Your task to perform on an android device: Open notification settings Image 0: 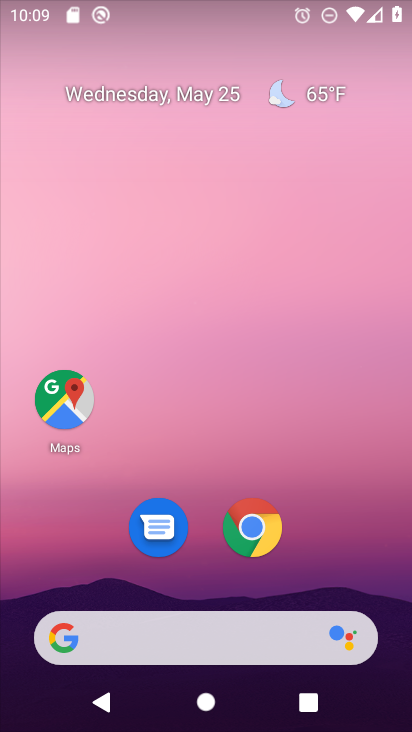
Step 0: drag from (333, 568) to (225, 121)
Your task to perform on an android device: Open notification settings Image 1: 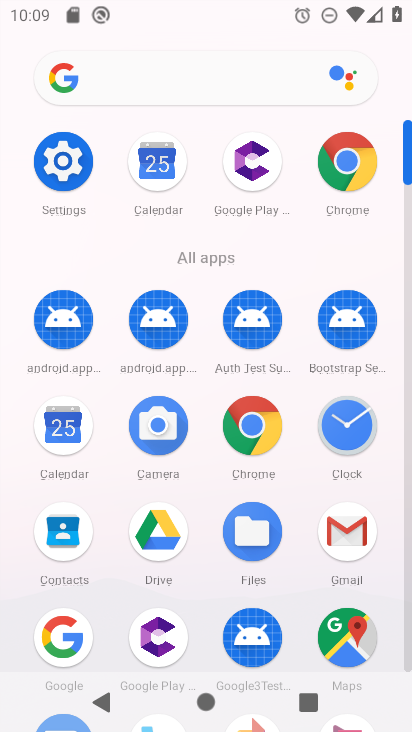
Step 1: click (63, 160)
Your task to perform on an android device: Open notification settings Image 2: 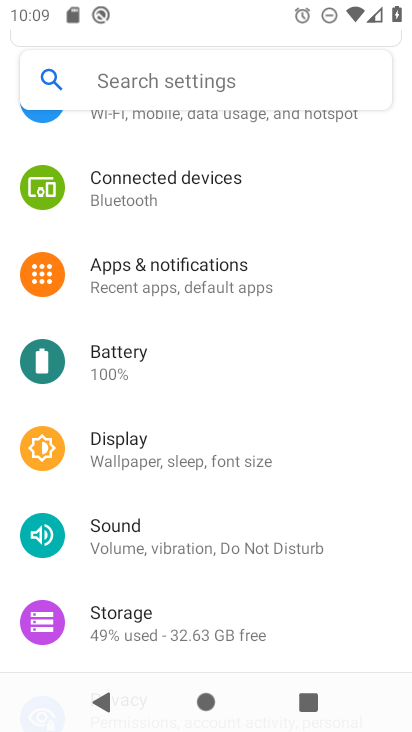
Step 2: click (212, 269)
Your task to perform on an android device: Open notification settings Image 3: 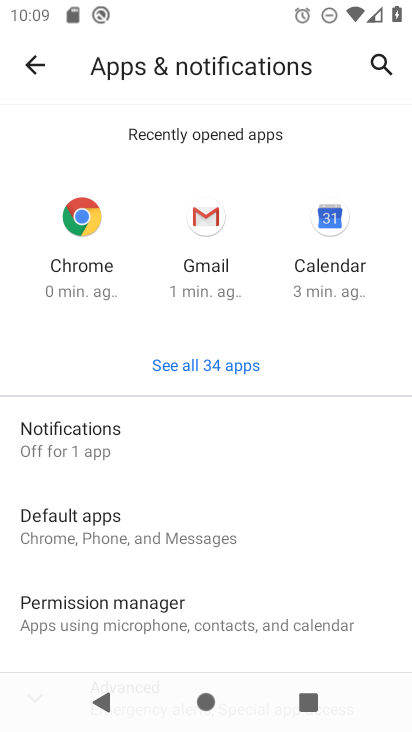
Step 3: click (62, 437)
Your task to perform on an android device: Open notification settings Image 4: 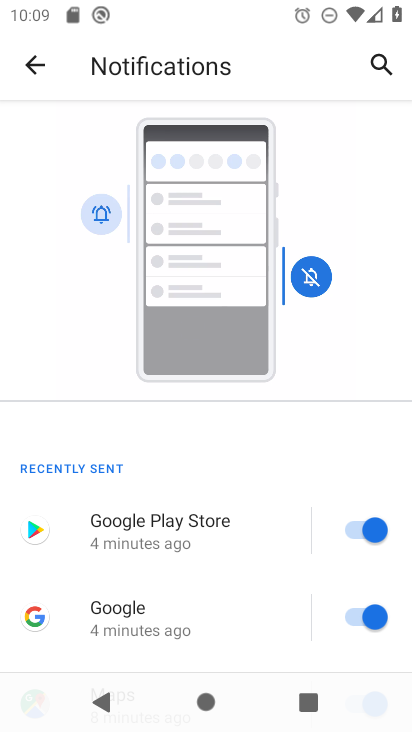
Step 4: task complete